Your task to perform on an android device: turn on location history Image 0: 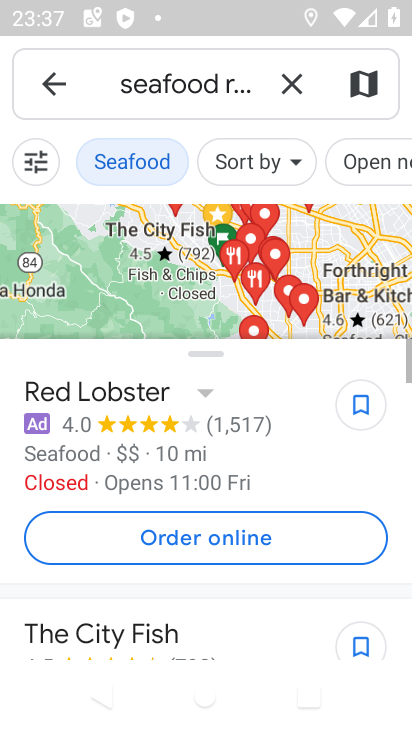
Step 0: press home button
Your task to perform on an android device: turn on location history Image 1: 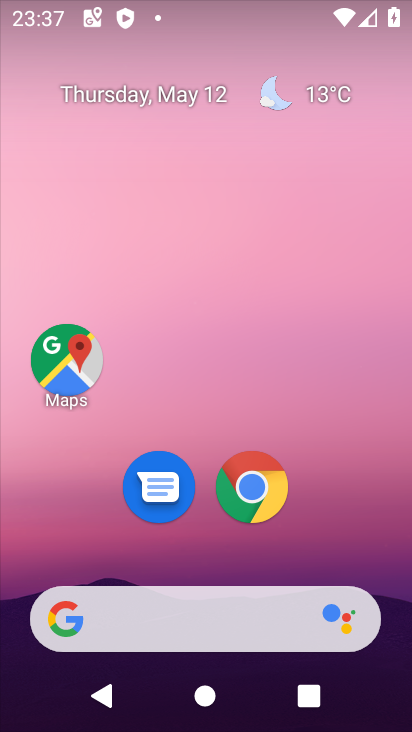
Step 1: drag from (218, 561) to (270, 36)
Your task to perform on an android device: turn on location history Image 2: 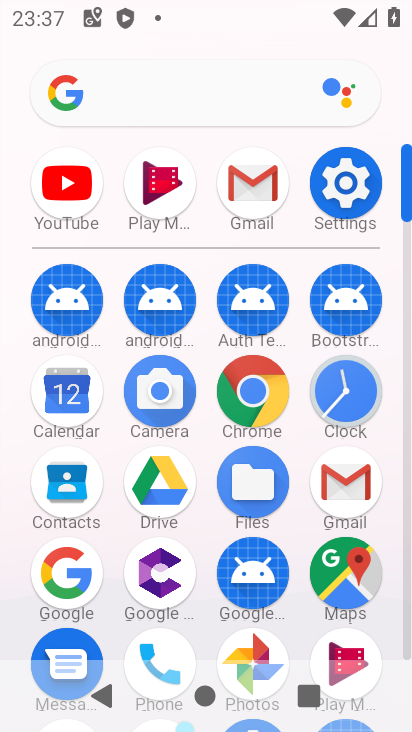
Step 2: click (338, 170)
Your task to perform on an android device: turn on location history Image 3: 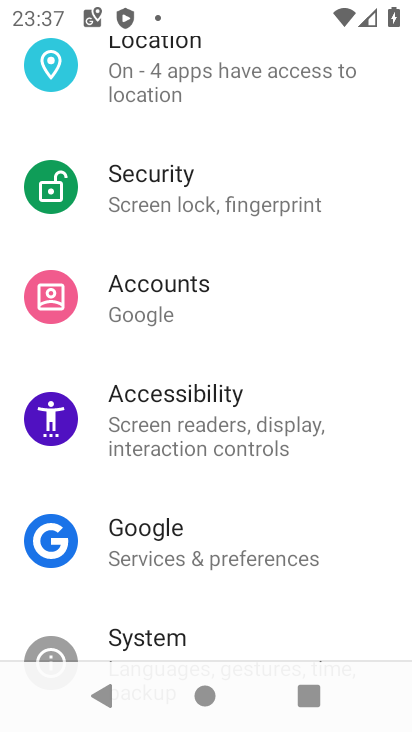
Step 3: click (214, 92)
Your task to perform on an android device: turn on location history Image 4: 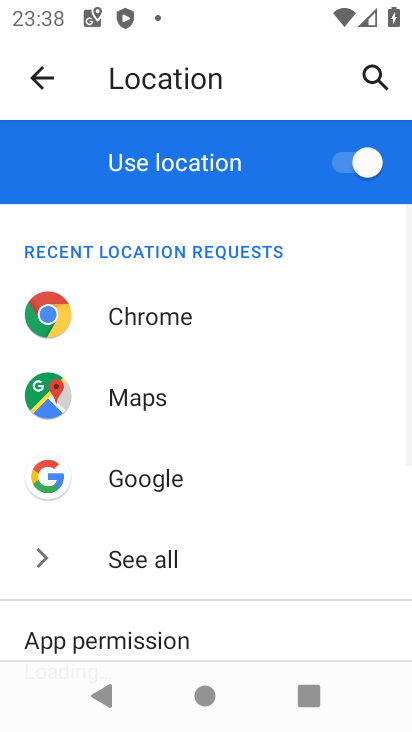
Step 4: drag from (116, 594) to (194, 90)
Your task to perform on an android device: turn on location history Image 5: 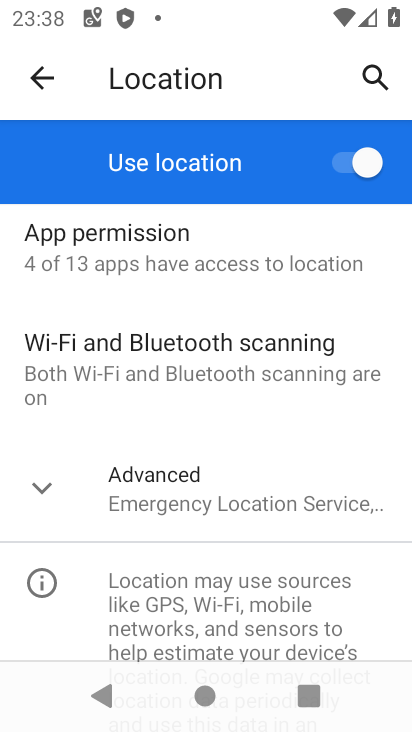
Step 5: click (174, 511)
Your task to perform on an android device: turn on location history Image 6: 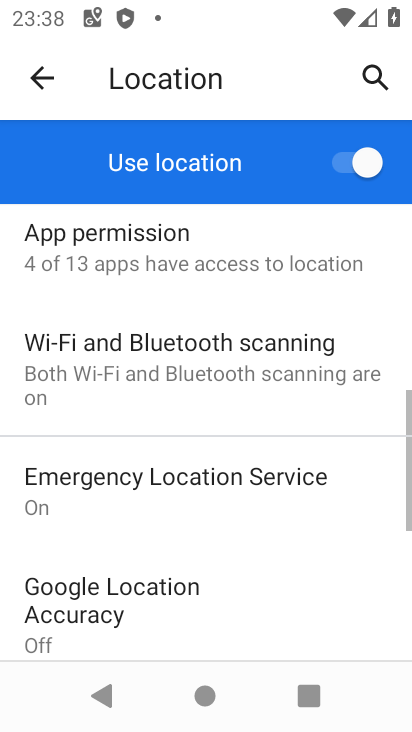
Step 6: drag from (174, 511) to (220, 197)
Your task to perform on an android device: turn on location history Image 7: 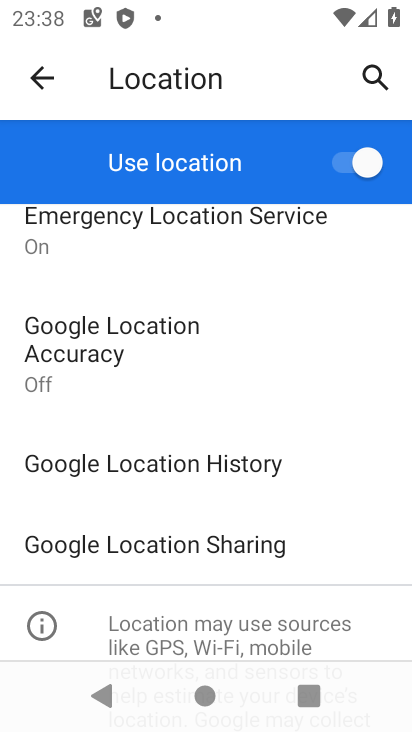
Step 7: click (172, 477)
Your task to perform on an android device: turn on location history Image 8: 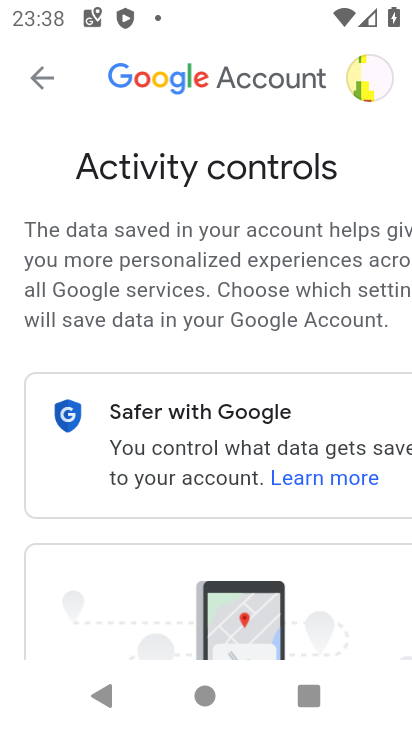
Step 8: task complete